Your task to perform on an android device: add a contact in the contacts app Image 0: 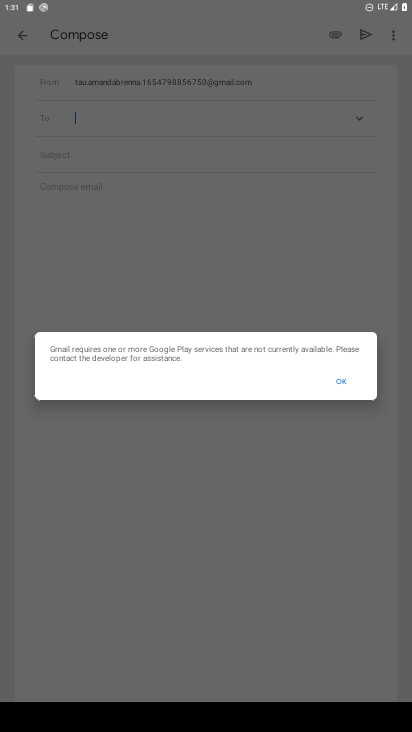
Step 0: click (340, 380)
Your task to perform on an android device: add a contact in the contacts app Image 1: 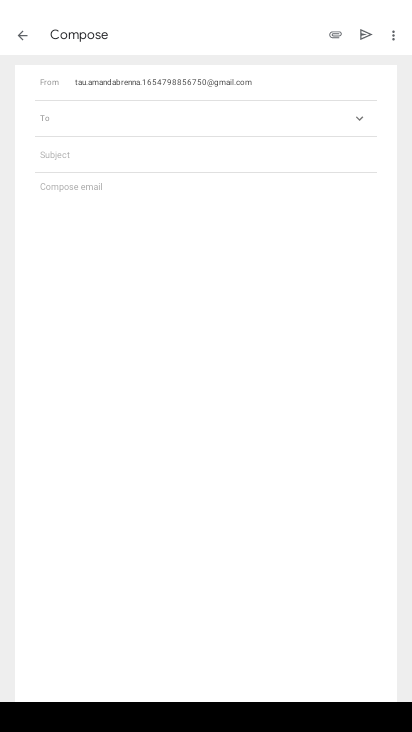
Step 1: click (371, 29)
Your task to perform on an android device: add a contact in the contacts app Image 2: 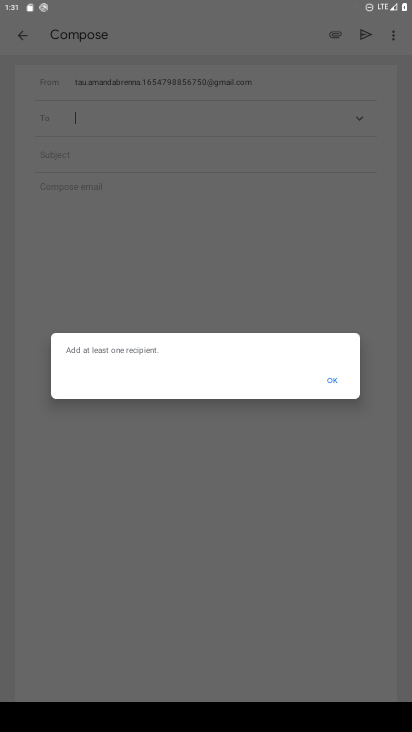
Step 2: click (329, 376)
Your task to perform on an android device: add a contact in the contacts app Image 3: 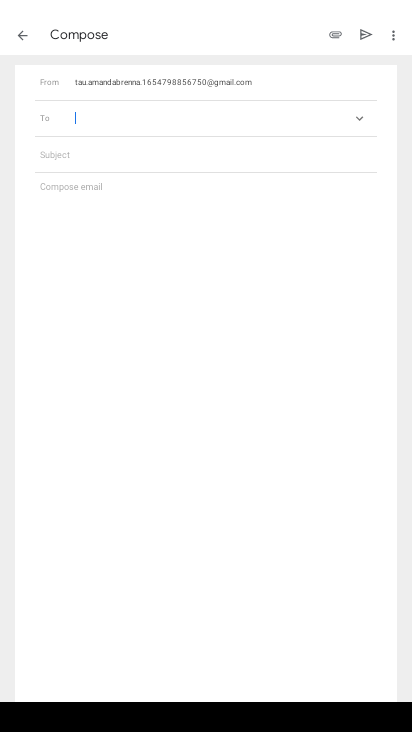
Step 3: click (25, 30)
Your task to perform on an android device: add a contact in the contacts app Image 4: 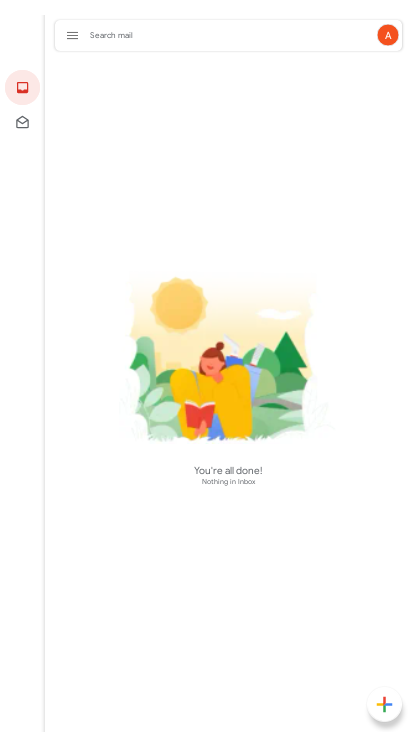
Step 4: press home button
Your task to perform on an android device: add a contact in the contacts app Image 5: 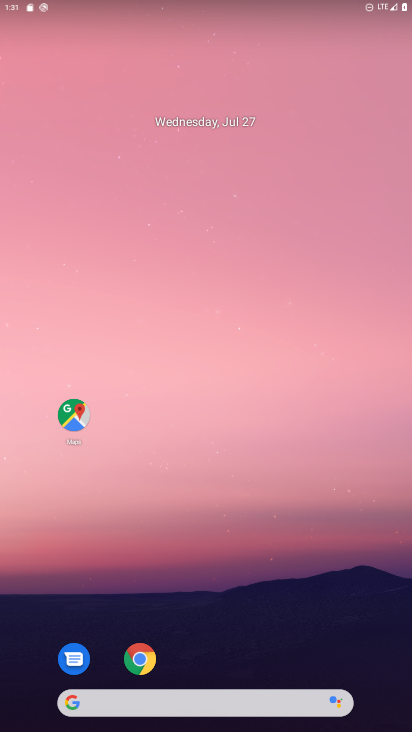
Step 5: drag from (225, 658) to (225, 346)
Your task to perform on an android device: add a contact in the contacts app Image 6: 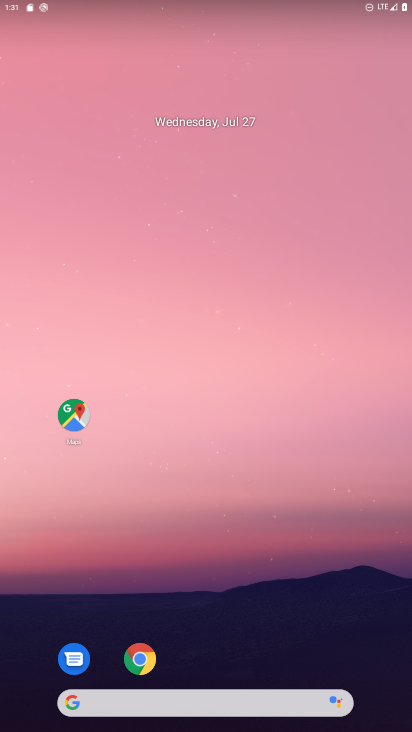
Step 6: drag from (224, 677) to (266, 200)
Your task to perform on an android device: add a contact in the contacts app Image 7: 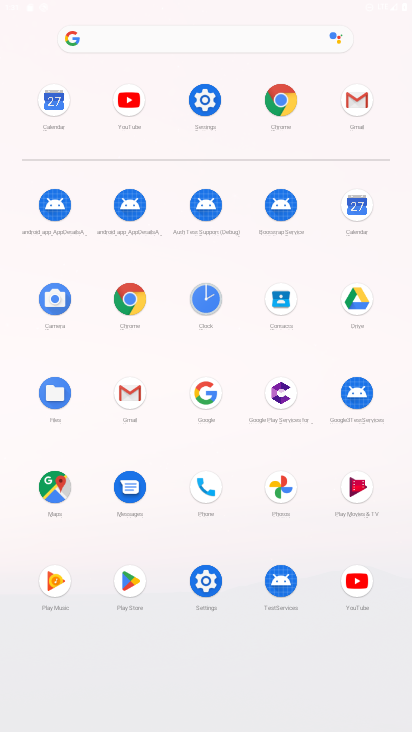
Step 7: click (286, 310)
Your task to perform on an android device: add a contact in the contacts app Image 8: 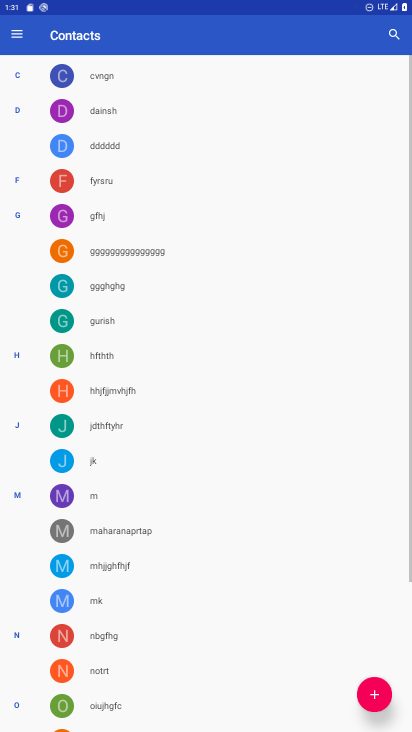
Step 8: click (376, 693)
Your task to perform on an android device: add a contact in the contacts app Image 9: 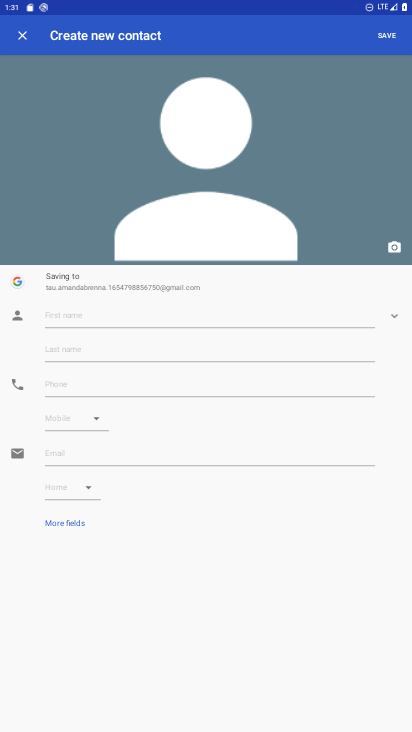
Step 9: click (138, 307)
Your task to perform on an android device: add a contact in the contacts app Image 10: 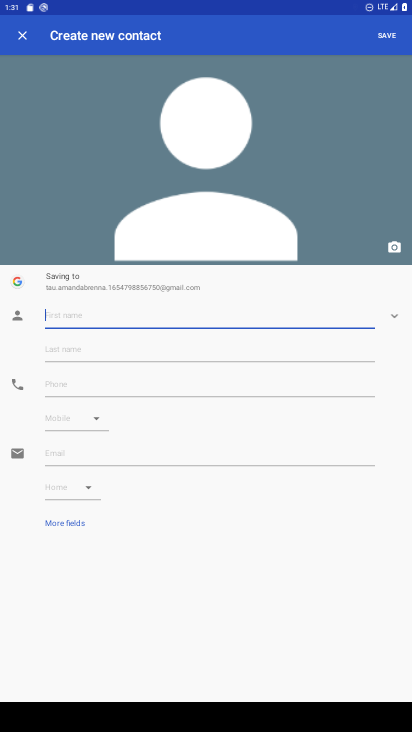
Step 10: type "dsdfdsfss"
Your task to perform on an android device: add a contact in the contacts app Image 11: 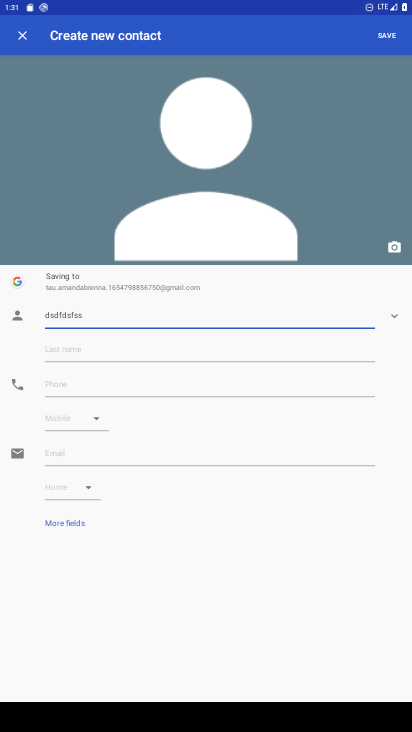
Step 11: click (93, 377)
Your task to perform on an android device: add a contact in the contacts app Image 12: 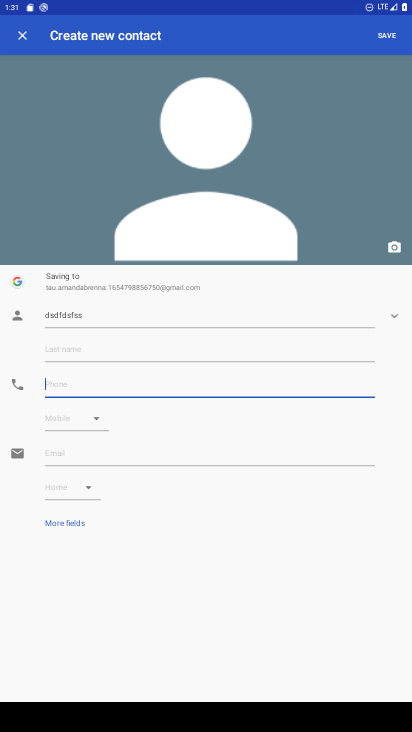
Step 12: type "98764531278"
Your task to perform on an android device: add a contact in the contacts app Image 13: 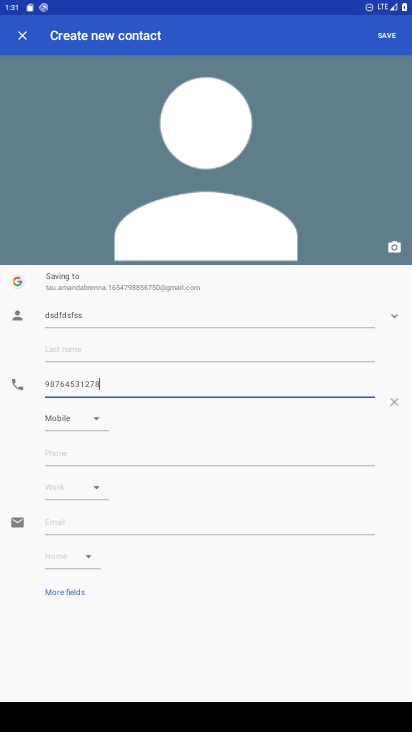
Step 13: type ""
Your task to perform on an android device: add a contact in the contacts app Image 14: 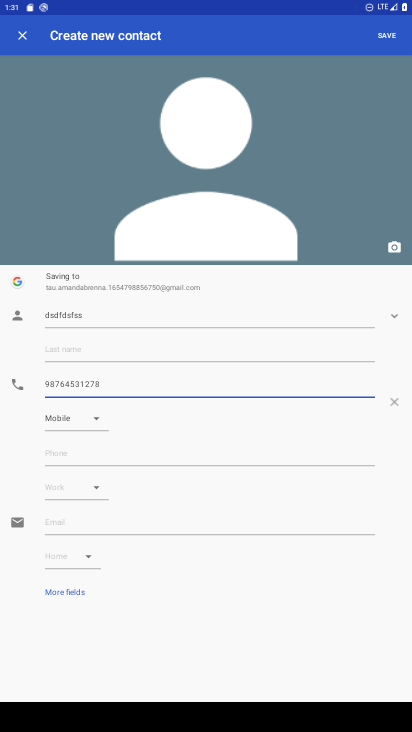
Step 14: click (384, 36)
Your task to perform on an android device: add a contact in the contacts app Image 15: 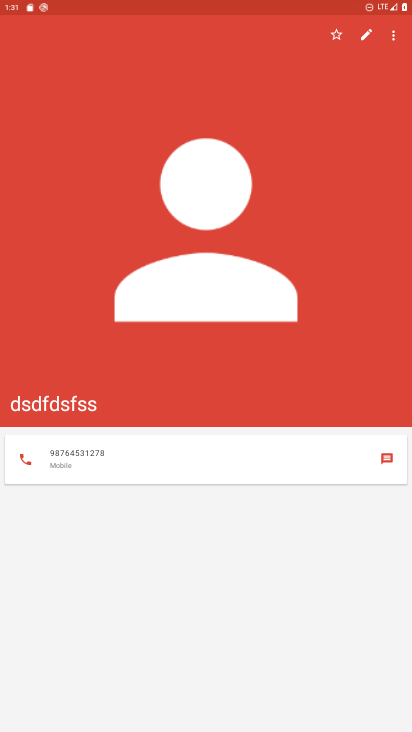
Step 15: task complete